Your task to perform on an android device: clear history in the chrome app Image 0: 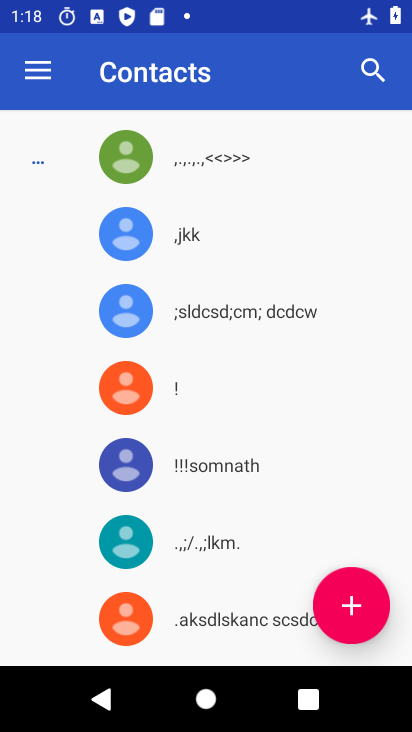
Step 0: press home button
Your task to perform on an android device: clear history in the chrome app Image 1: 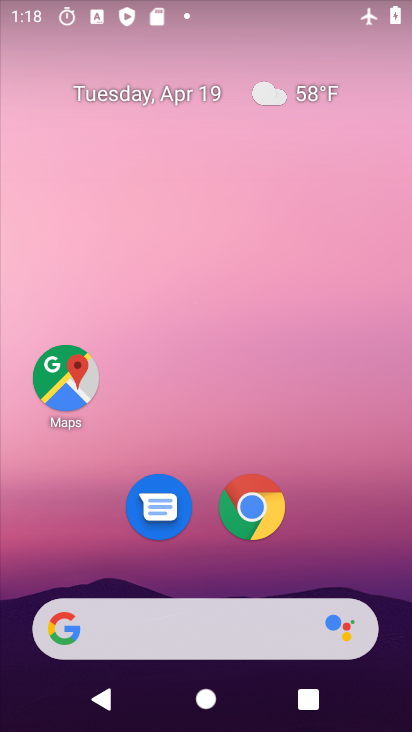
Step 1: click (259, 508)
Your task to perform on an android device: clear history in the chrome app Image 2: 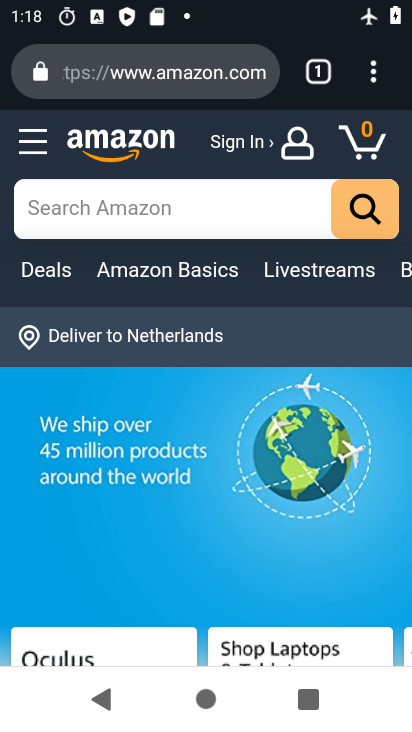
Step 2: click (377, 75)
Your task to perform on an android device: clear history in the chrome app Image 3: 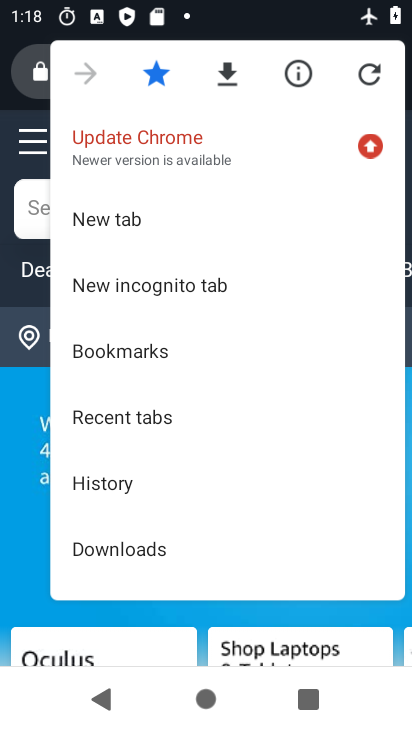
Step 3: click (129, 479)
Your task to perform on an android device: clear history in the chrome app Image 4: 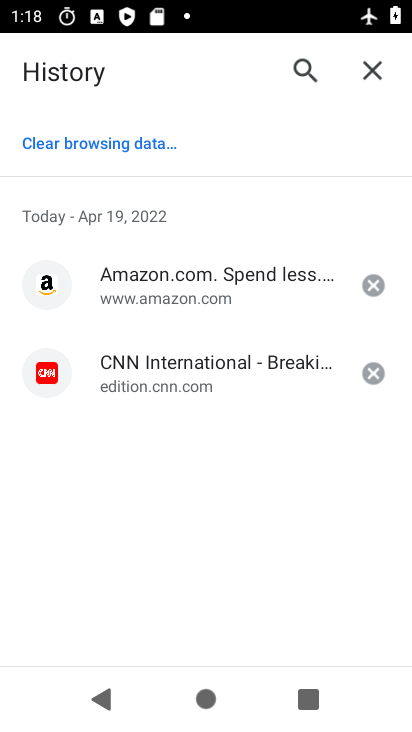
Step 4: click (122, 146)
Your task to perform on an android device: clear history in the chrome app Image 5: 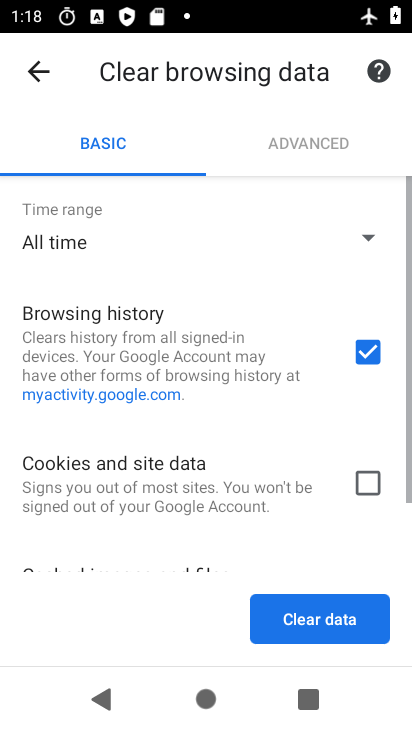
Step 5: click (368, 463)
Your task to perform on an android device: clear history in the chrome app Image 6: 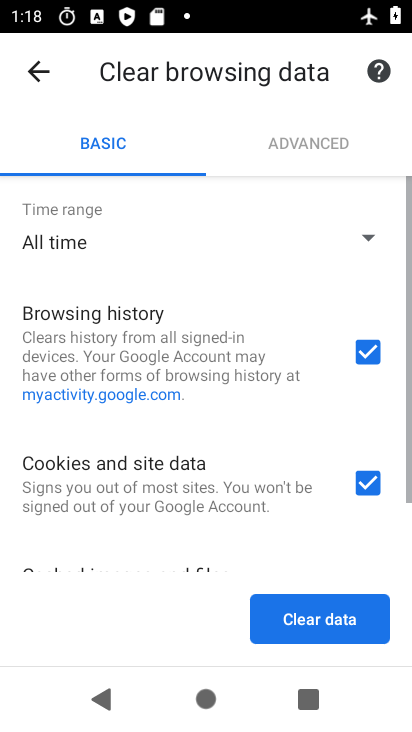
Step 6: click (316, 635)
Your task to perform on an android device: clear history in the chrome app Image 7: 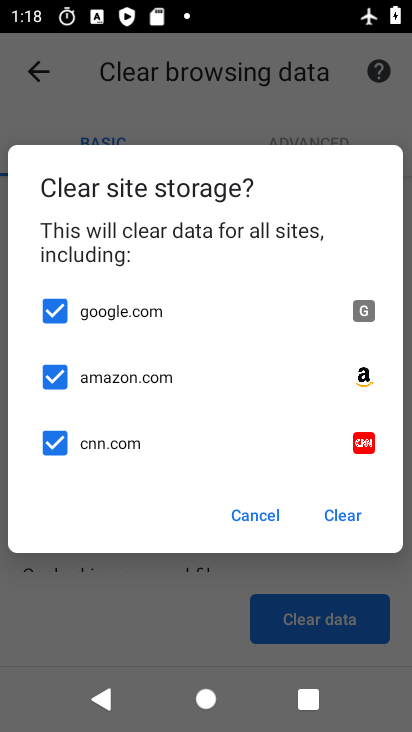
Step 7: click (340, 507)
Your task to perform on an android device: clear history in the chrome app Image 8: 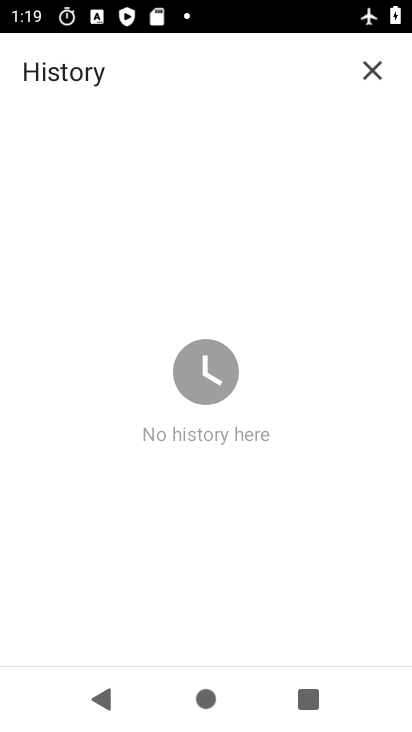
Step 8: task complete